Your task to perform on an android device: turn smart compose on in the gmail app Image 0: 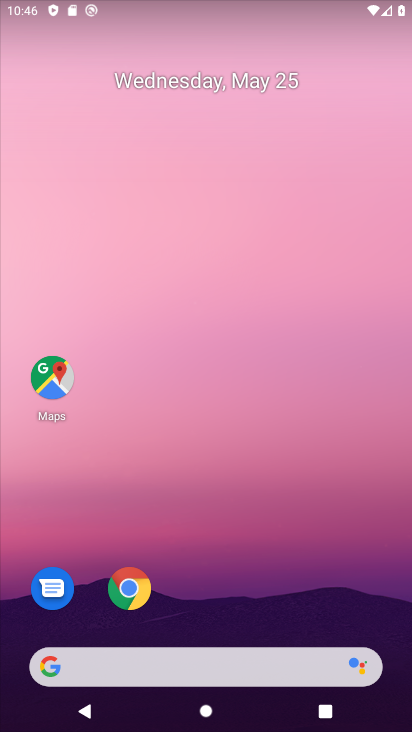
Step 0: drag from (194, 628) to (279, 175)
Your task to perform on an android device: turn smart compose on in the gmail app Image 1: 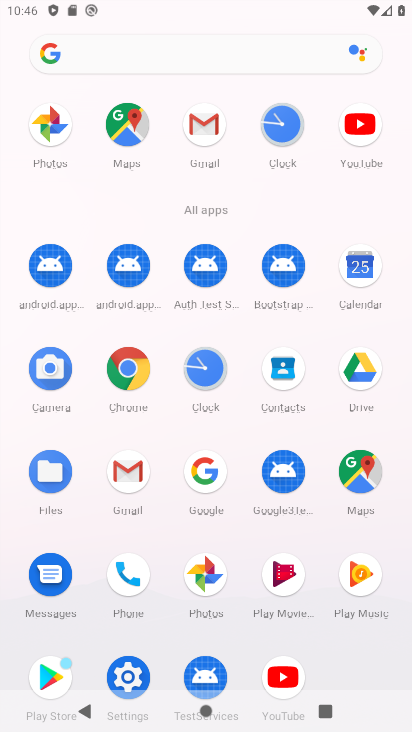
Step 1: click (199, 120)
Your task to perform on an android device: turn smart compose on in the gmail app Image 2: 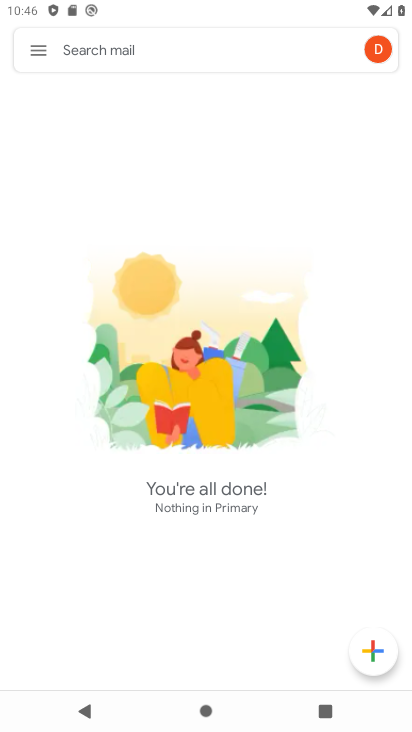
Step 2: click (36, 44)
Your task to perform on an android device: turn smart compose on in the gmail app Image 3: 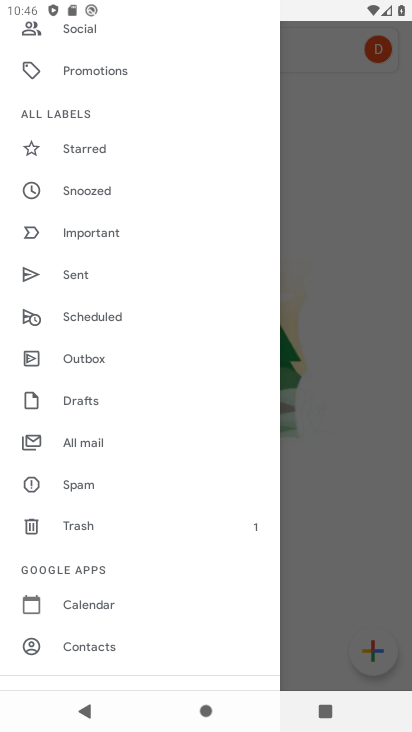
Step 3: drag from (87, 581) to (163, 64)
Your task to perform on an android device: turn smart compose on in the gmail app Image 4: 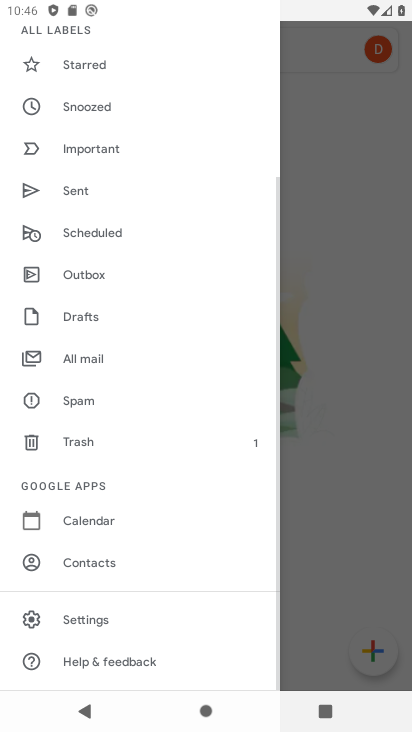
Step 4: click (118, 612)
Your task to perform on an android device: turn smart compose on in the gmail app Image 5: 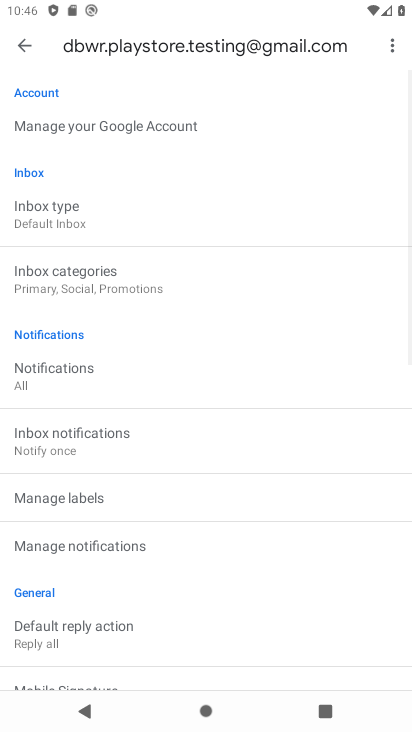
Step 5: task complete